Your task to perform on an android device: Turn off the flashlight Image 0: 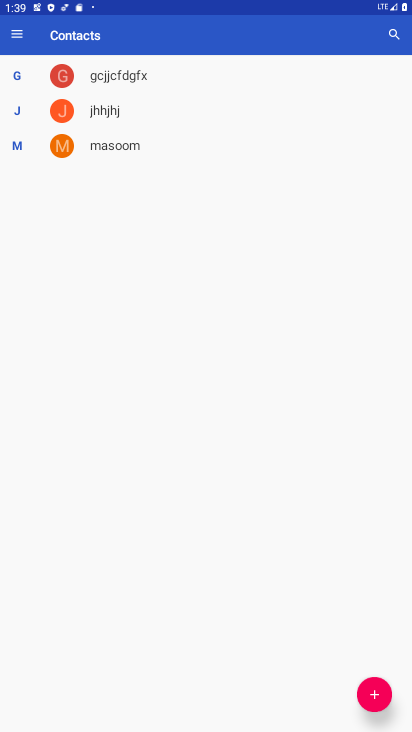
Step 0: press home button
Your task to perform on an android device: Turn off the flashlight Image 1: 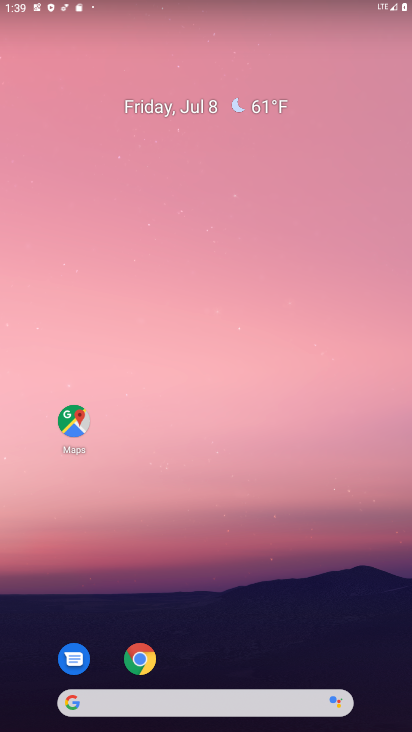
Step 1: drag from (210, 675) to (207, 172)
Your task to perform on an android device: Turn off the flashlight Image 2: 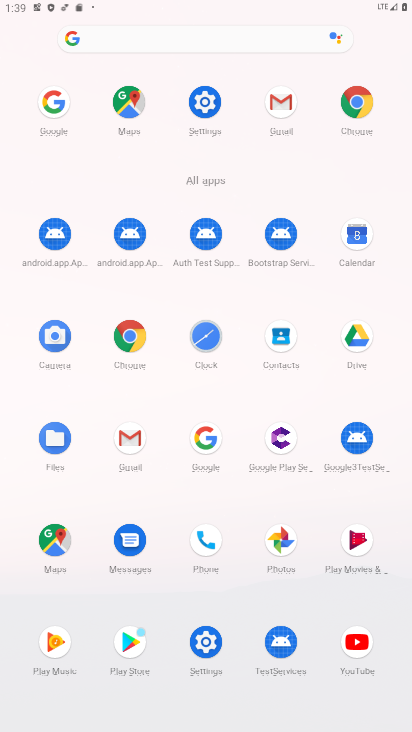
Step 2: click (197, 98)
Your task to perform on an android device: Turn off the flashlight Image 3: 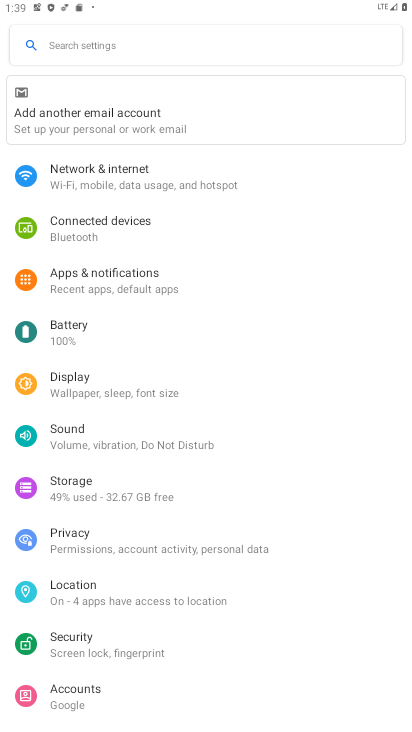
Step 3: task complete